Your task to perform on an android device: Search for pizza restaurants on Maps Image 0: 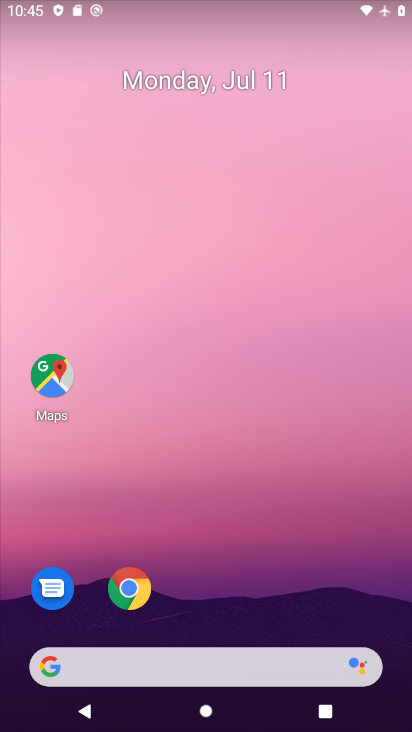
Step 0: click (62, 373)
Your task to perform on an android device: Search for pizza restaurants on Maps Image 1: 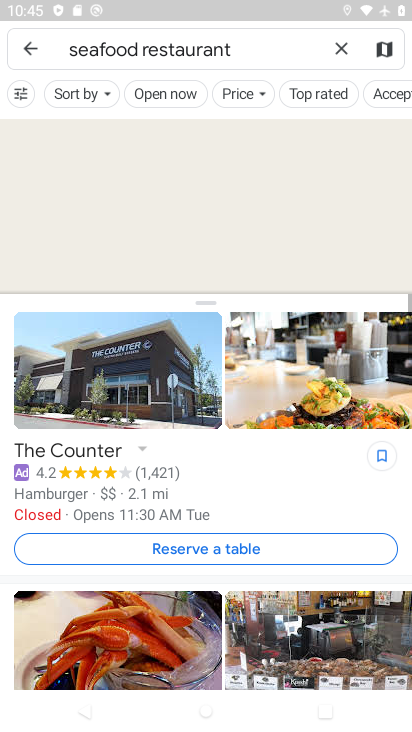
Step 1: click (340, 48)
Your task to perform on an android device: Search for pizza restaurants on Maps Image 2: 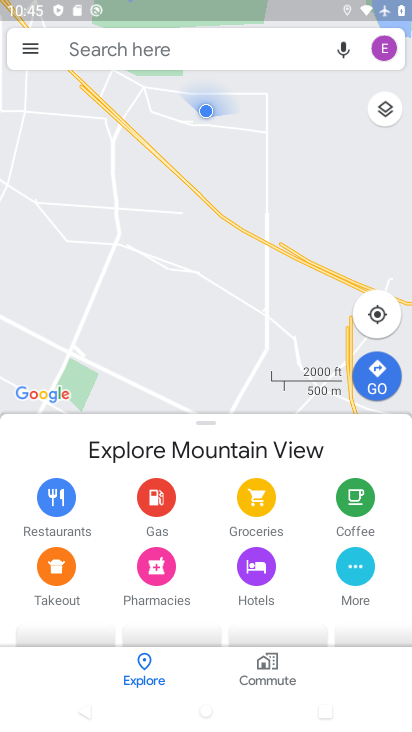
Step 2: click (162, 45)
Your task to perform on an android device: Search for pizza restaurants on Maps Image 3: 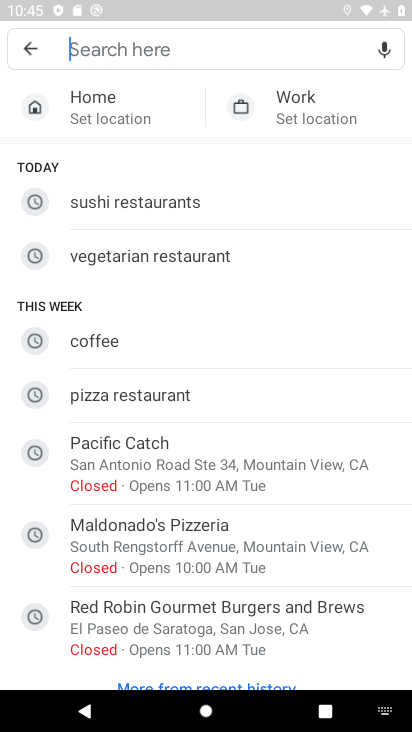
Step 3: click (146, 387)
Your task to perform on an android device: Search for pizza restaurants on Maps Image 4: 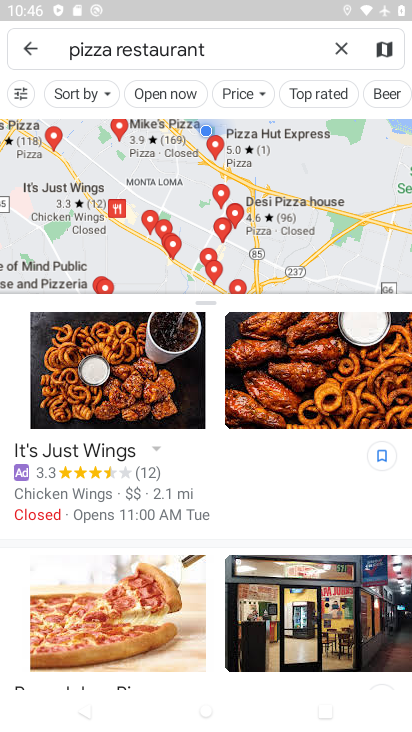
Step 4: task complete